Your task to perform on an android device: open app "Adobe Express: Graphic Design" Image 0: 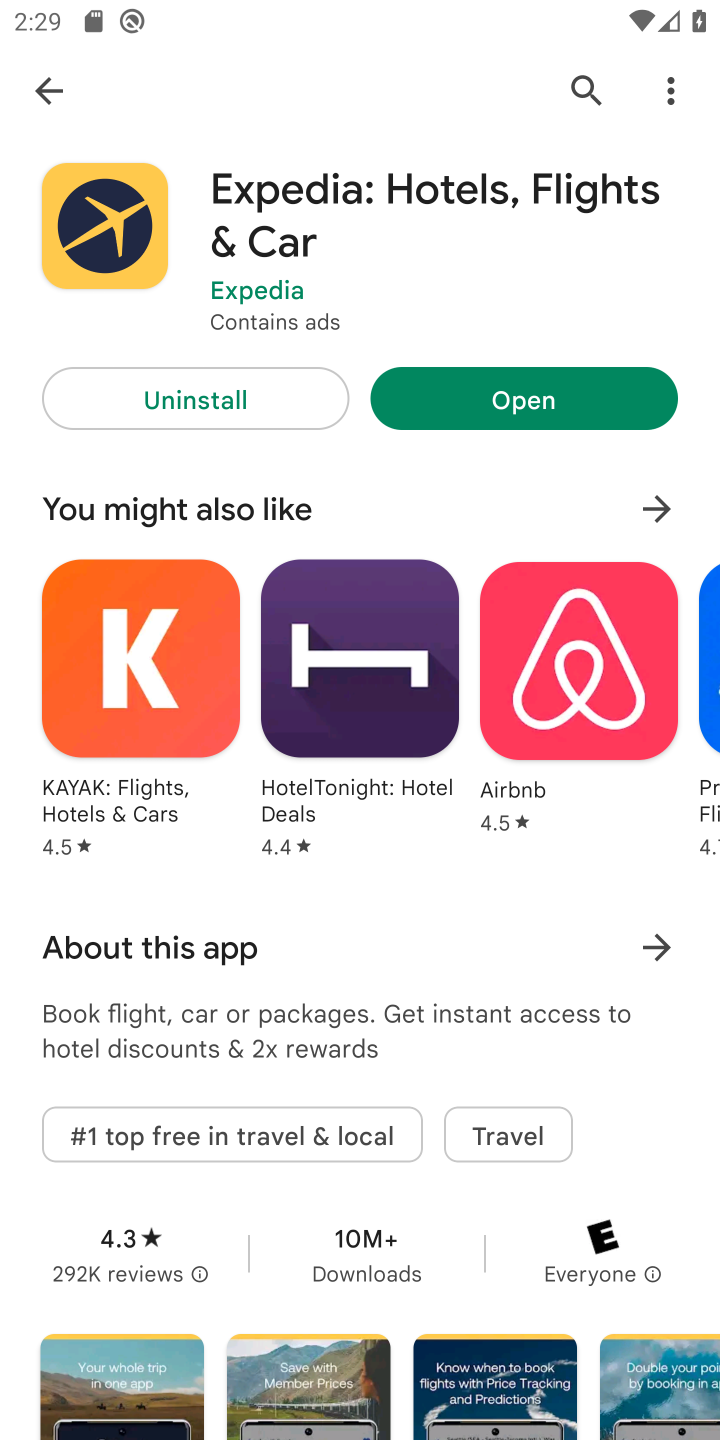
Step 0: click (578, 77)
Your task to perform on an android device: open app "Adobe Express: Graphic Design" Image 1: 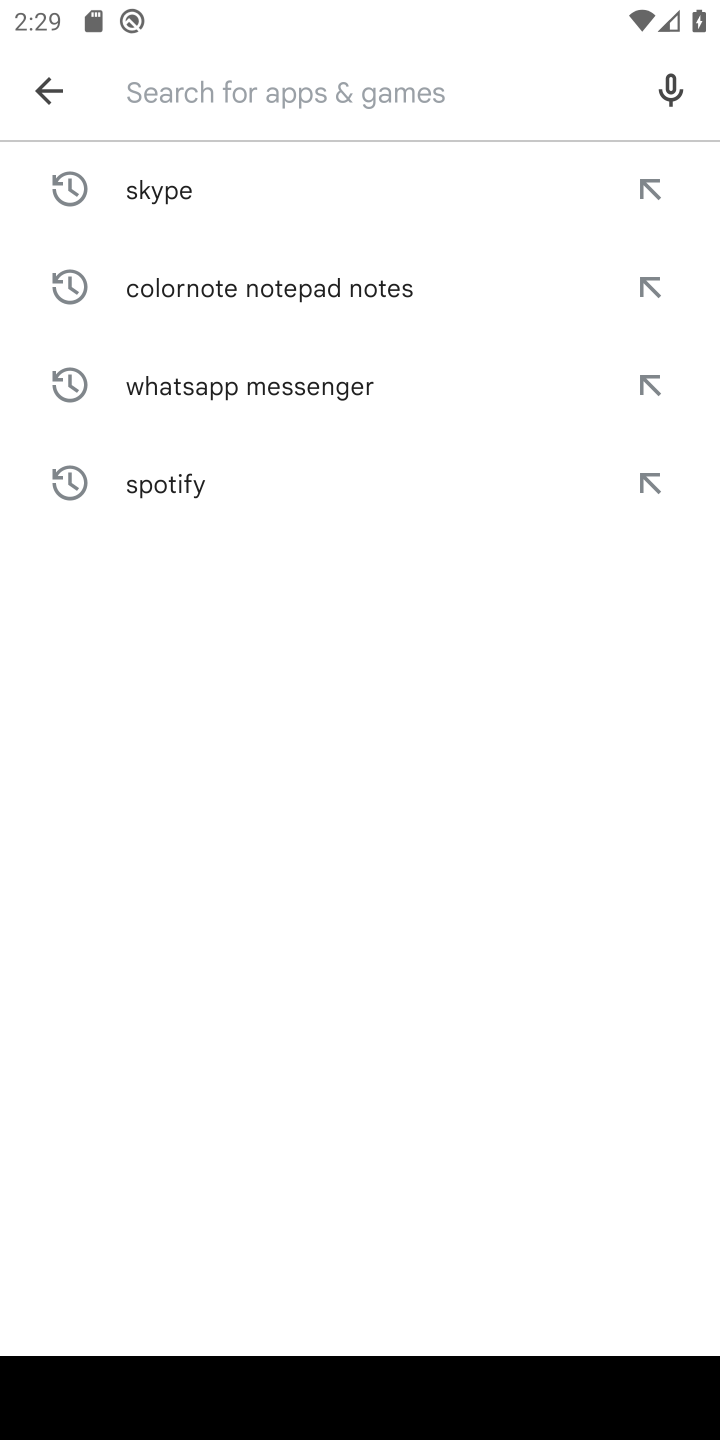
Step 1: type "Adobe Express: Graphic Design"
Your task to perform on an android device: open app "Adobe Express: Graphic Design" Image 2: 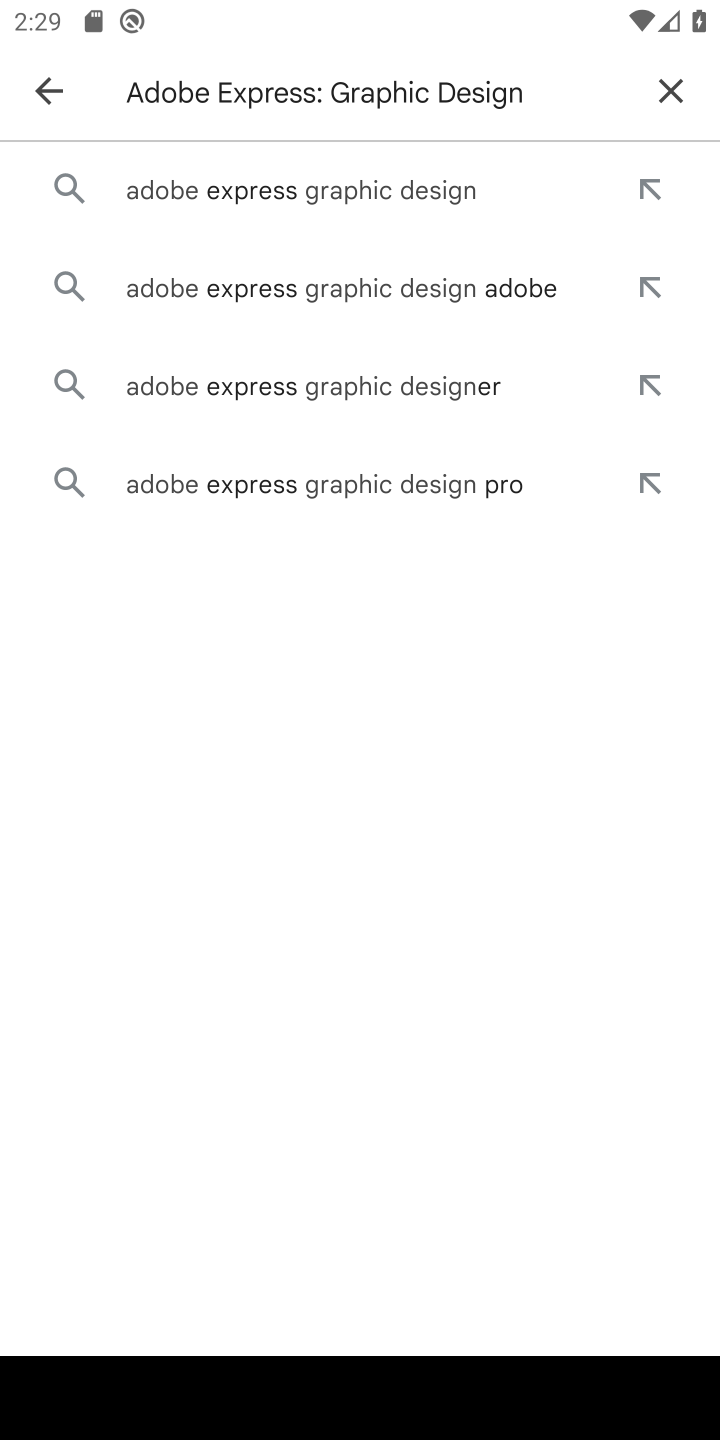
Step 2: click (369, 209)
Your task to perform on an android device: open app "Adobe Express: Graphic Design" Image 3: 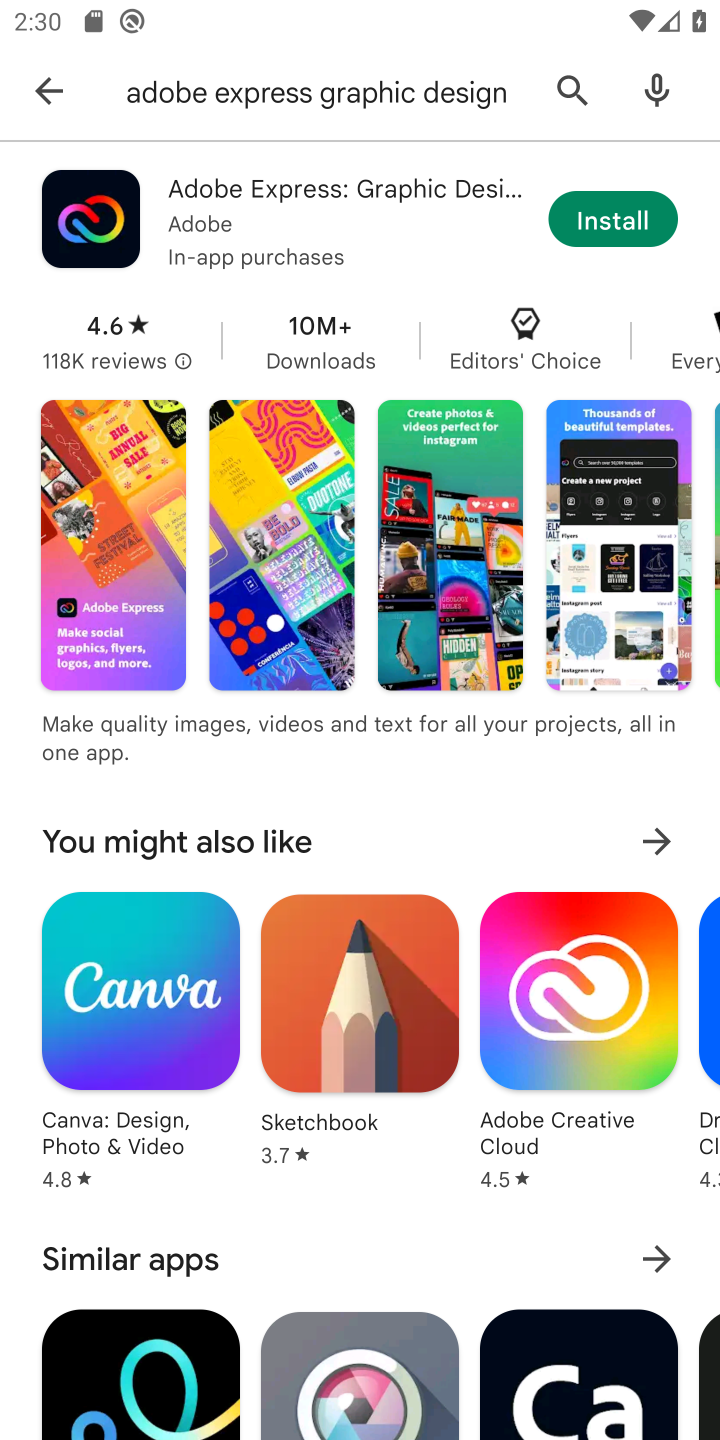
Step 3: click (635, 219)
Your task to perform on an android device: open app "Adobe Express: Graphic Design" Image 4: 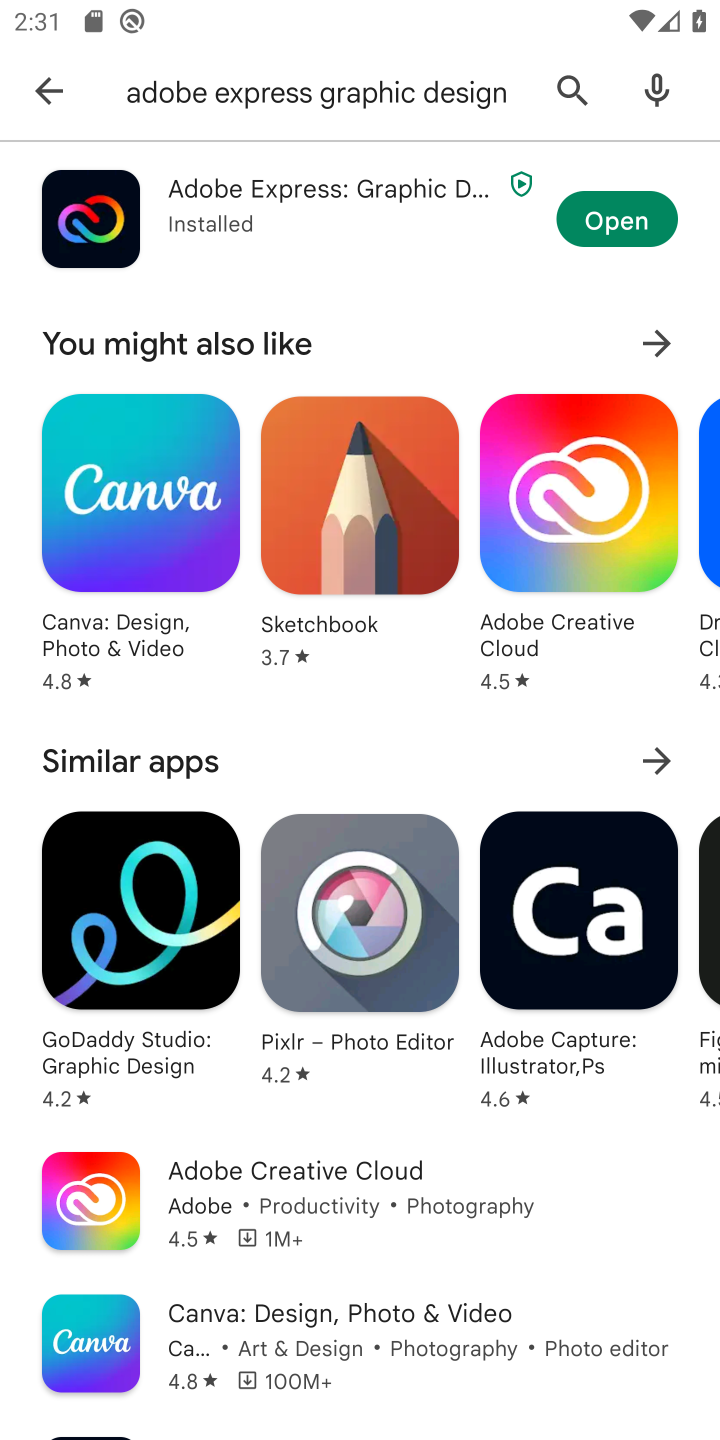
Step 4: click (616, 210)
Your task to perform on an android device: open app "Adobe Express: Graphic Design" Image 5: 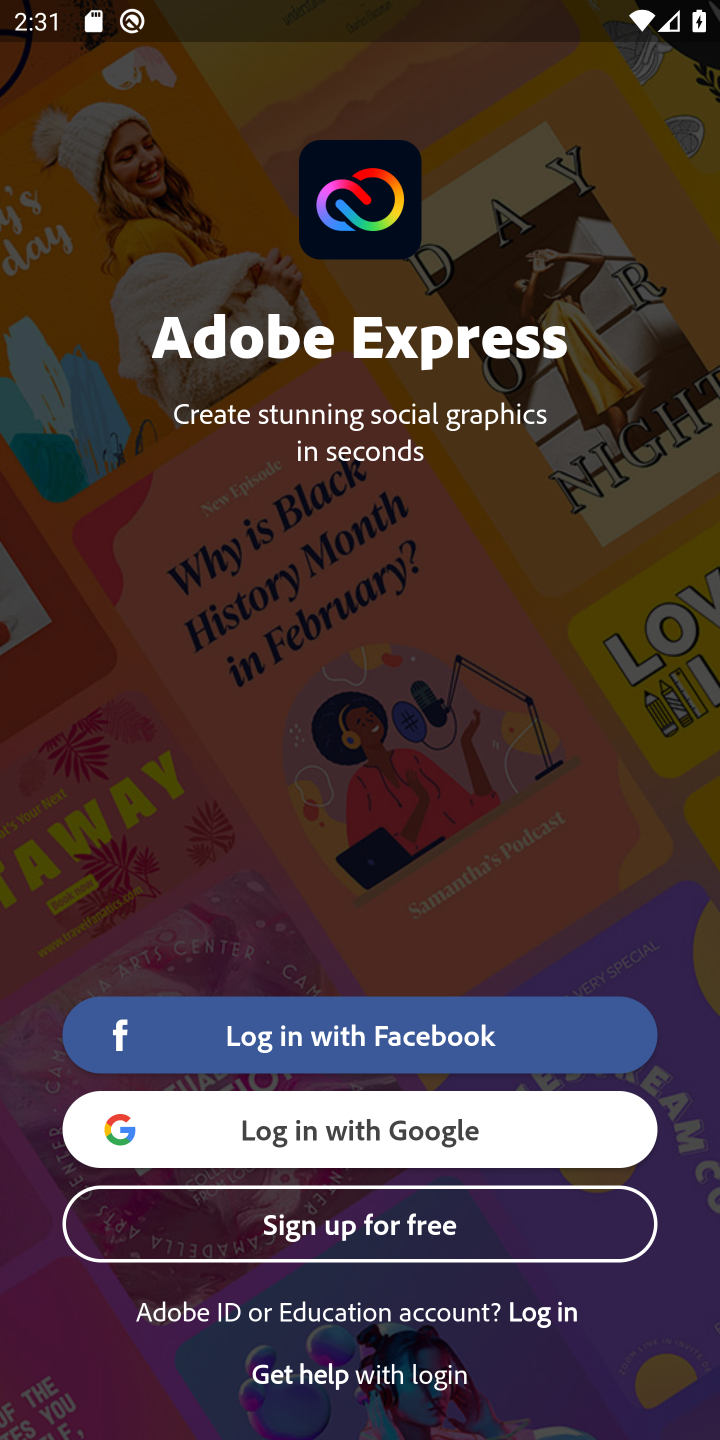
Step 5: task complete